Your task to perform on an android device: Open calendar and show me the third week of next month Image 0: 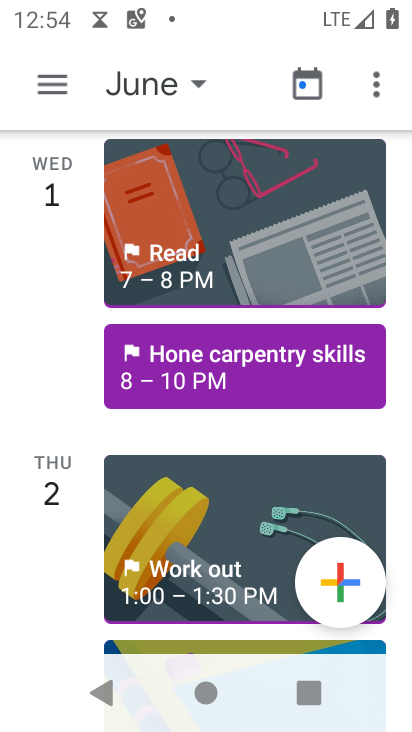
Step 0: click (54, 72)
Your task to perform on an android device: Open calendar and show me the third week of next month Image 1: 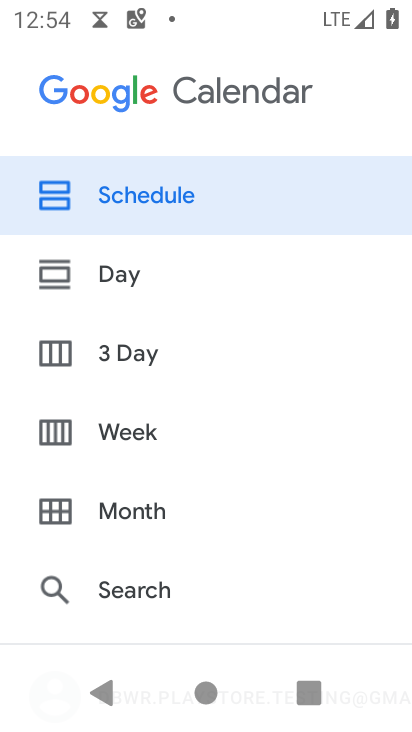
Step 1: click (133, 441)
Your task to perform on an android device: Open calendar and show me the third week of next month Image 2: 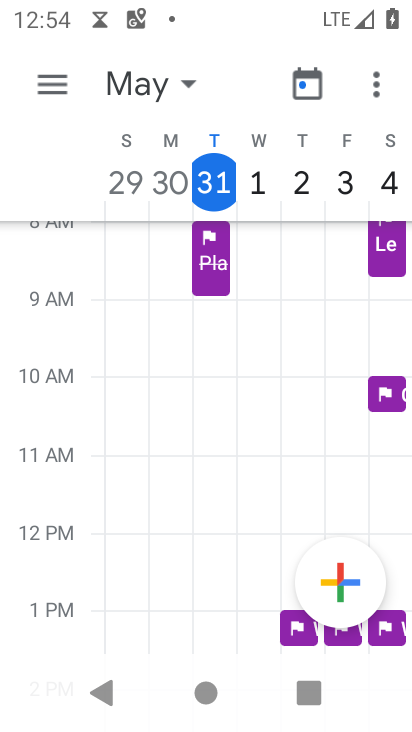
Step 2: click (178, 85)
Your task to perform on an android device: Open calendar and show me the third week of next month Image 3: 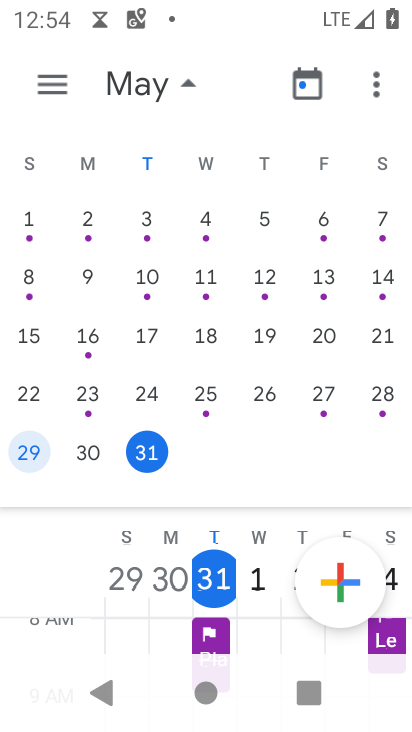
Step 3: drag from (348, 436) to (20, 308)
Your task to perform on an android device: Open calendar and show me the third week of next month Image 4: 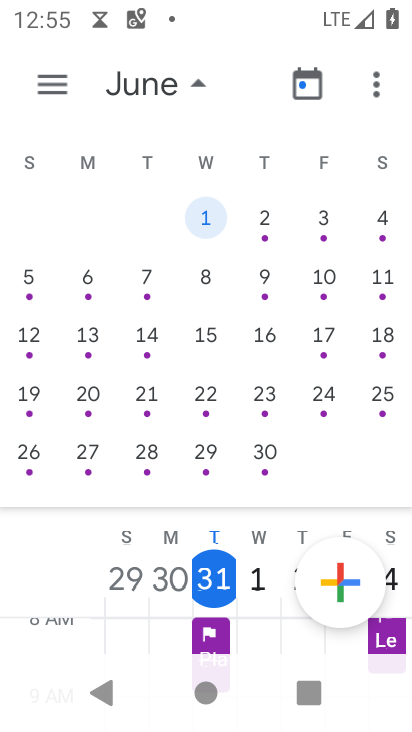
Step 4: click (210, 341)
Your task to perform on an android device: Open calendar and show me the third week of next month Image 5: 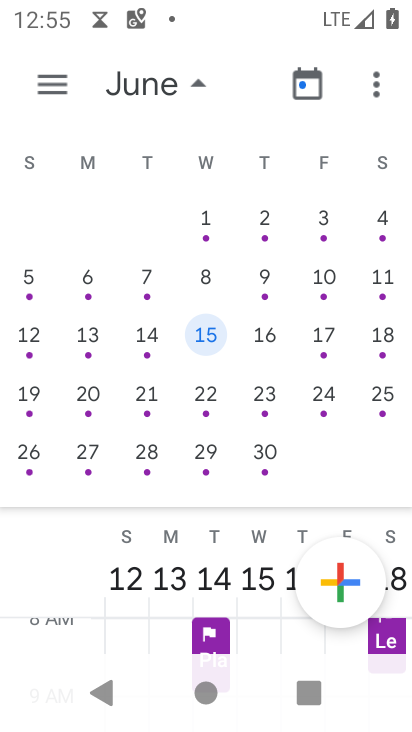
Step 5: task complete